Your task to perform on an android device: Go to location settings Image 0: 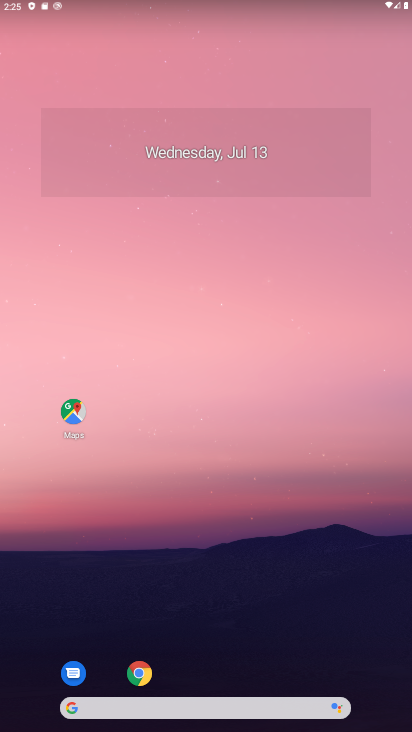
Step 0: drag from (201, 706) to (256, 132)
Your task to perform on an android device: Go to location settings Image 1: 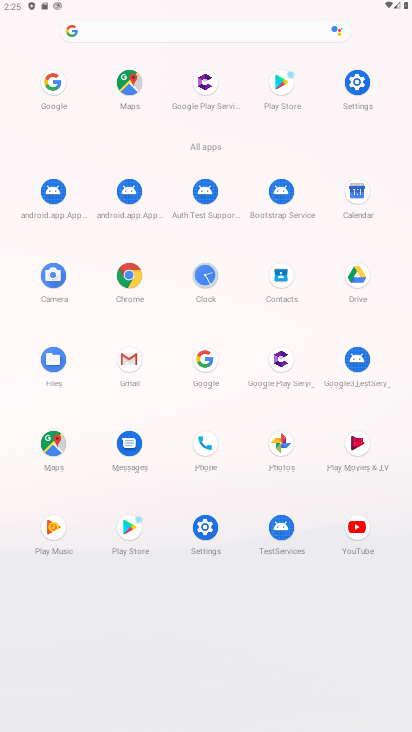
Step 1: click (357, 82)
Your task to perform on an android device: Go to location settings Image 2: 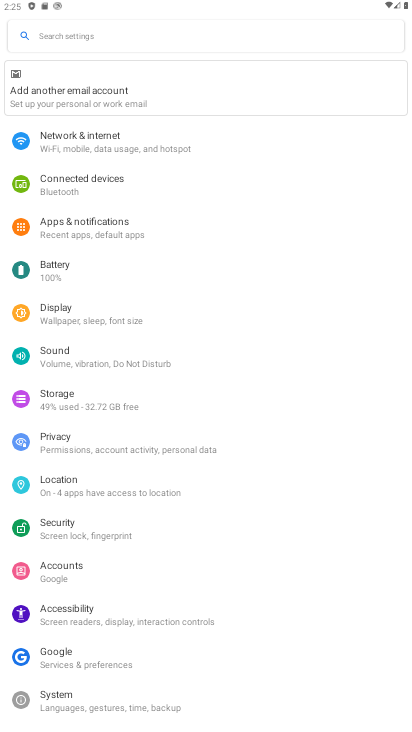
Step 2: click (78, 483)
Your task to perform on an android device: Go to location settings Image 3: 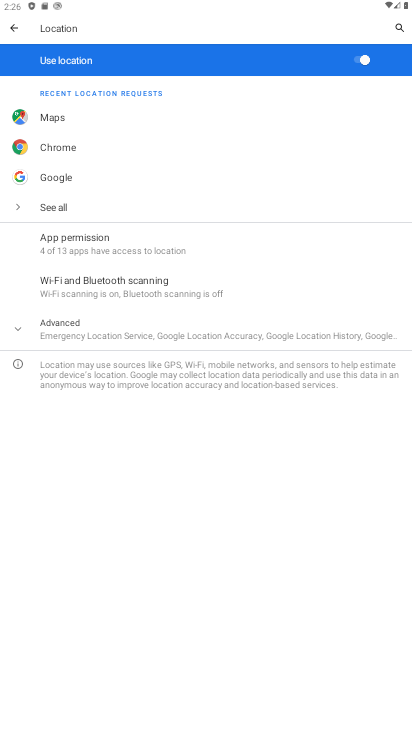
Step 3: task complete